Your task to perform on an android device: change keyboard looks Image 0: 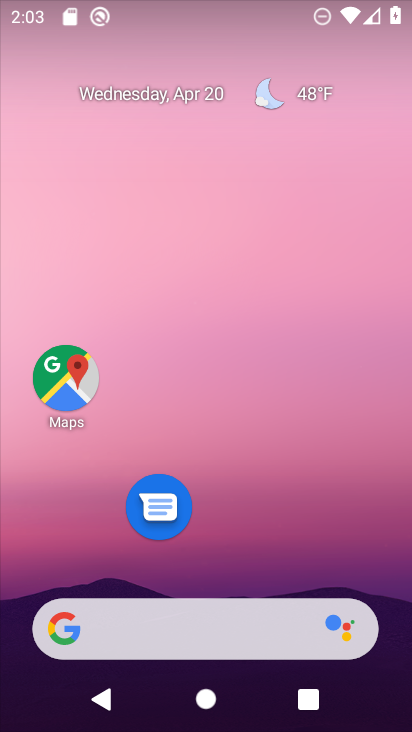
Step 0: drag from (202, 723) to (201, 90)
Your task to perform on an android device: change keyboard looks Image 1: 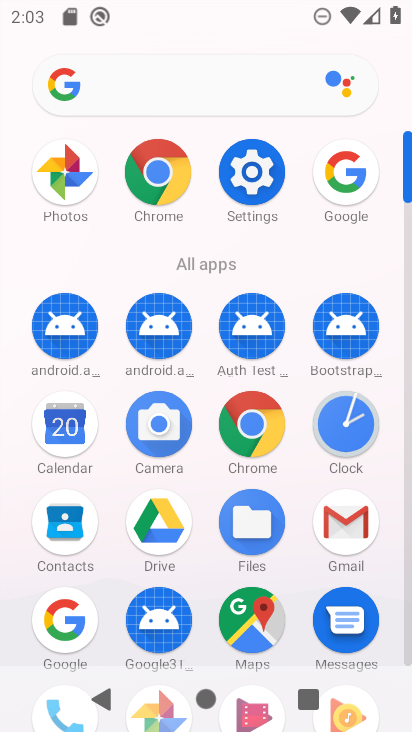
Step 1: click (248, 177)
Your task to perform on an android device: change keyboard looks Image 2: 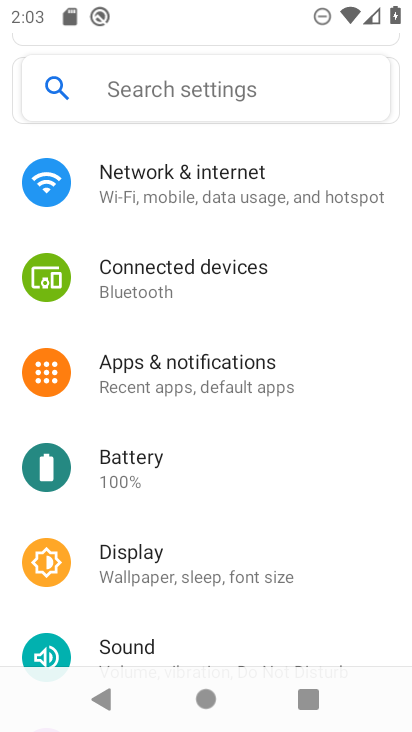
Step 2: drag from (226, 639) to (230, 101)
Your task to perform on an android device: change keyboard looks Image 3: 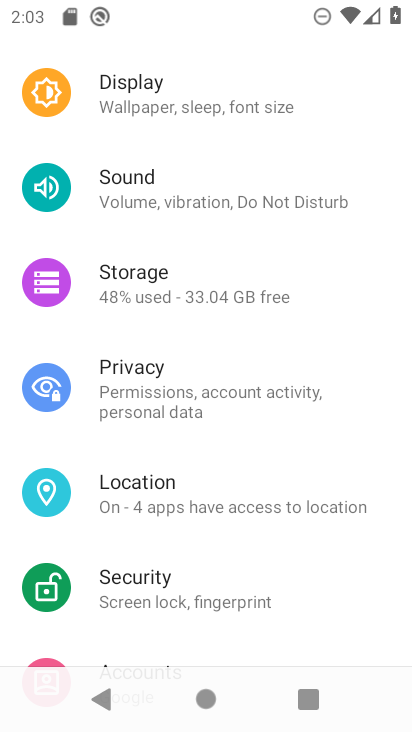
Step 3: drag from (242, 614) to (252, 158)
Your task to perform on an android device: change keyboard looks Image 4: 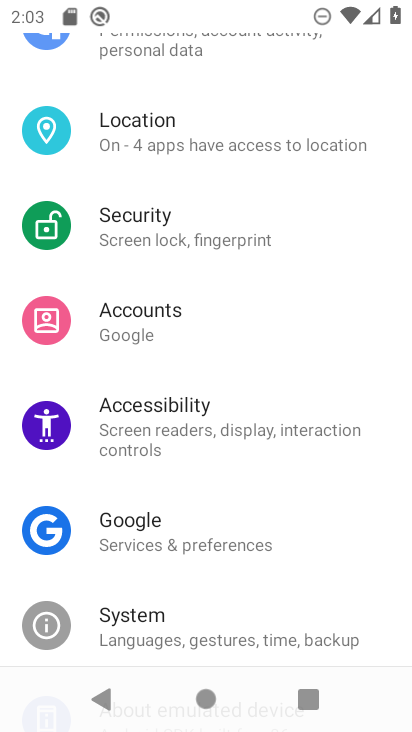
Step 4: click (148, 629)
Your task to perform on an android device: change keyboard looks Image 5: 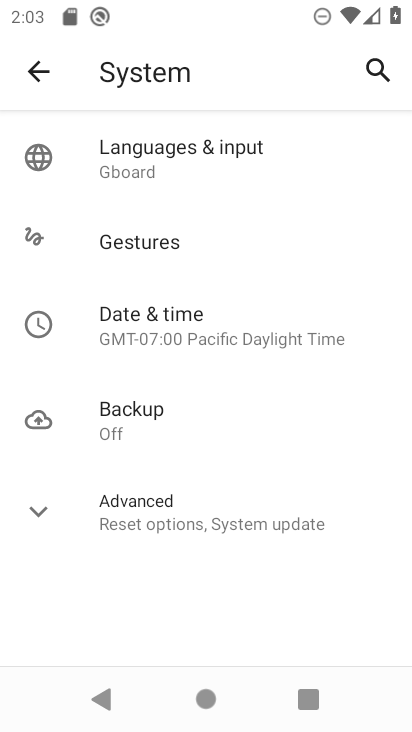
Step 5: click (133, 173)
Your task to perform on an android device: change keyboard looks Image 6: 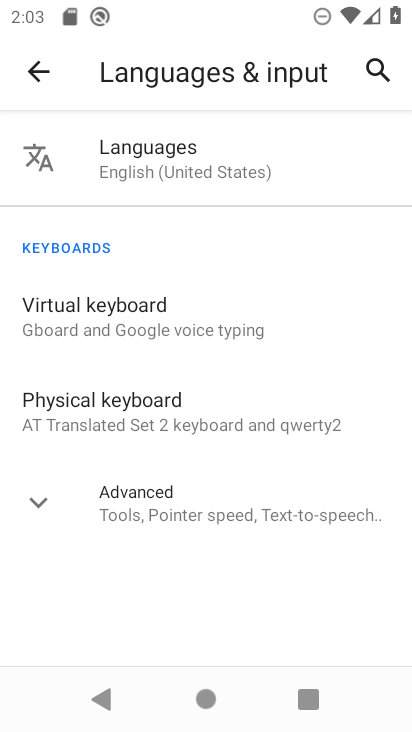
Step 6: click (107, 313)
Your task to perform on an android device: change keyboard looks Image 7: 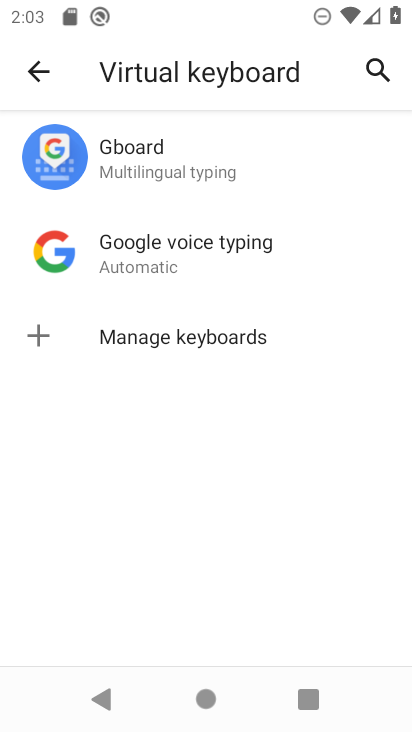
Step 7: click (142, 171)
Your task to perform on an android device: change keyboard looks Image 8: 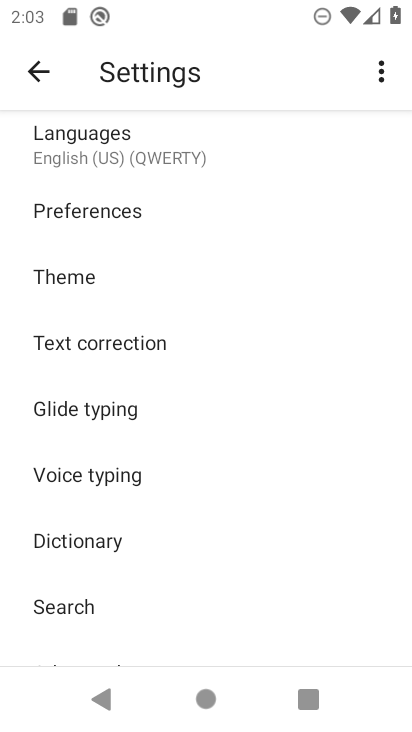
Step 8: click (62, 274)
Your task to perform on an android device: change keyboard looks Image 9: 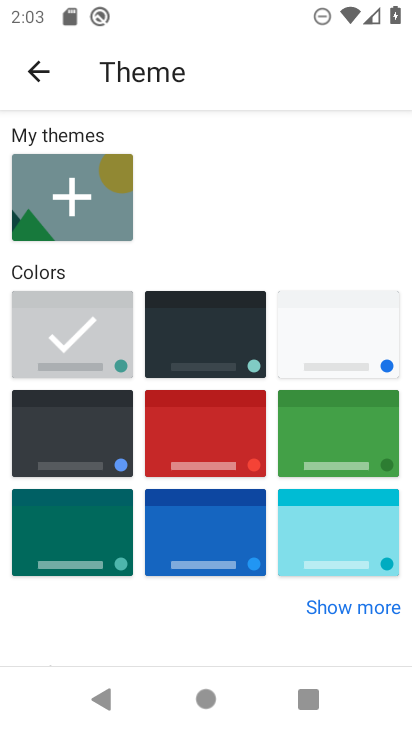
Step 9: click (190, 438)
Your task to perform on an android device: change keyboard looks Image 10: 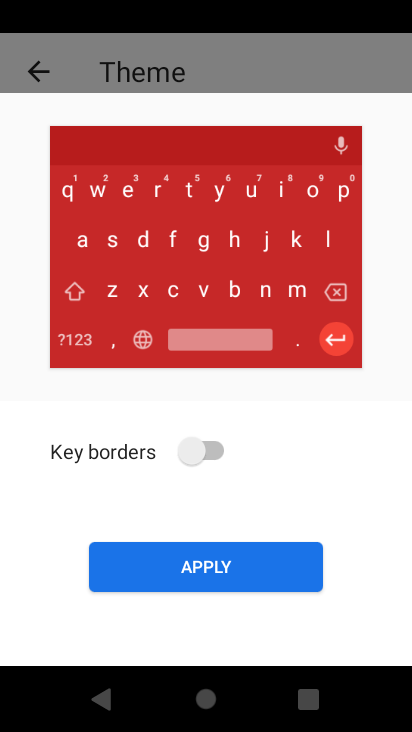
Step 10: click (210, 448)
Your task to perform on an android device: change keyboard looks Image 11: 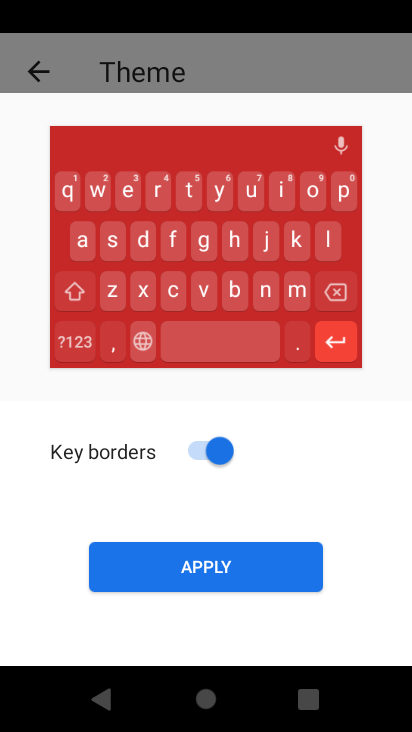
Step 11: click (222, 569)
Your task to perform on an android device: change keyboard looks Image 12: 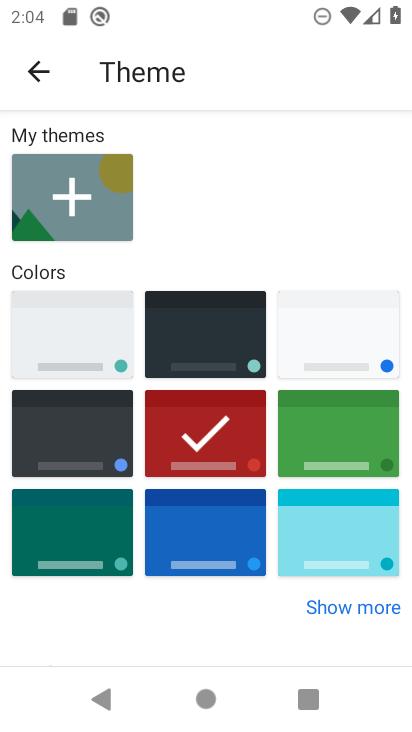
Step 12: task complete